Your task to perform on an android device: add a contact in the contacts app Image 0: 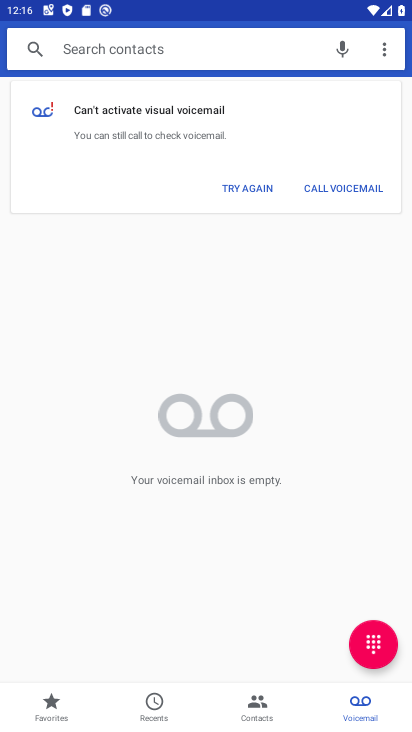
Step 0: press home button
Your task to perform on an android device: add a contact in the contacts app Image 1: 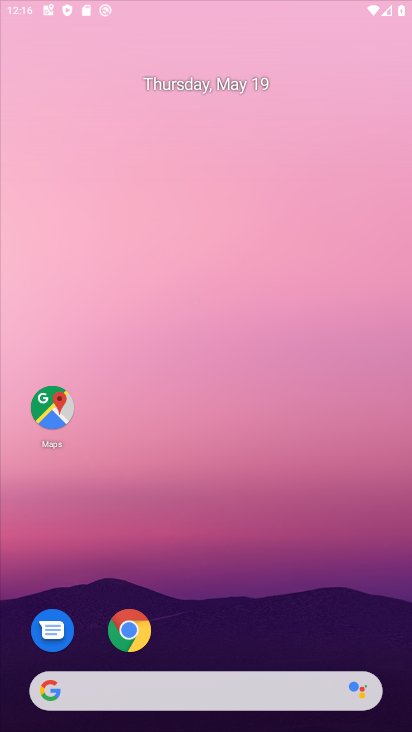
Step 1: drag from (157, 653) to (22, 254)
Your task to perform on an android device: add a contact in the contacts app Image 2: 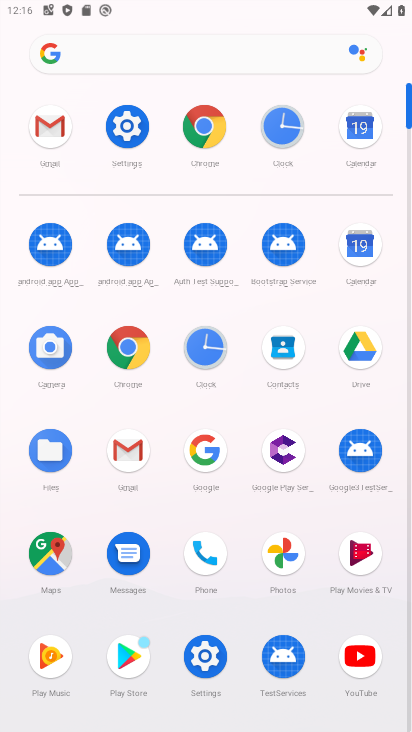
Step 2: click (286, 361)
Your task to perform on an android device: add a contact in the contacts app Image 3: 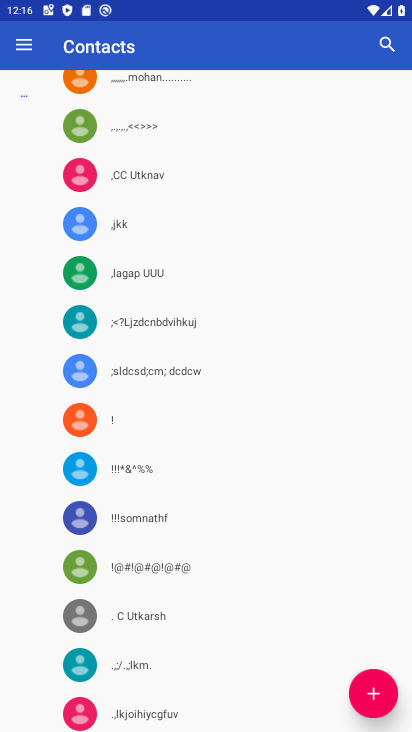
Step 3: drag from (253, 627) to (283, 411)
Your task to perform on an android device: add a contact in the contacts app Image 4: 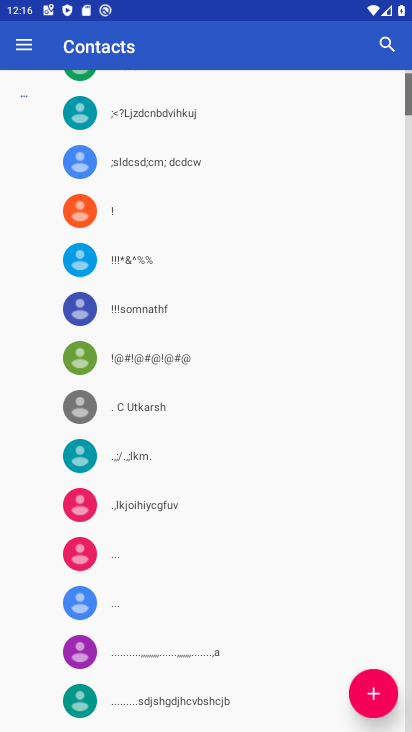
Step 4: click (370, 706)
Your task to perform on an android device: add a contact in the contacts app Image 5: 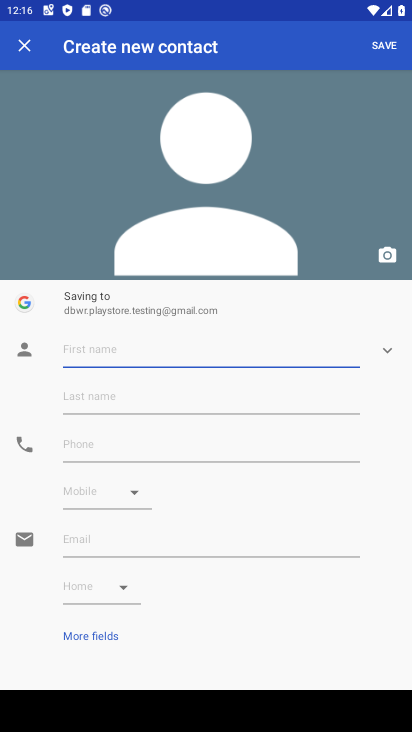
Step 5: type "contacts"
Your task to perform on an android device: add a contact in the contacts app Image 6: 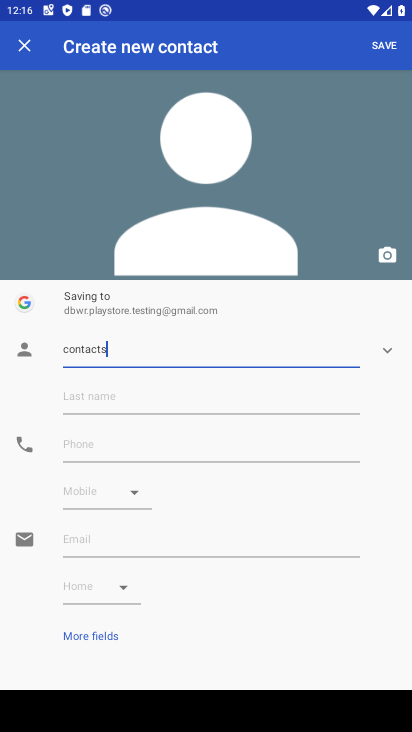
Step 6: type ""
Your task to perform on an android device: add a contact in the contacts app Image 7: 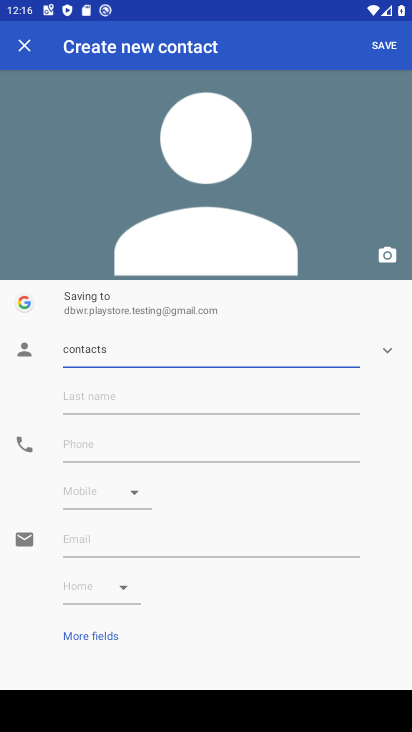
Step 7: click (382, 54)
Your task to perform on an android device: add a contact in the contacts app Image 8: 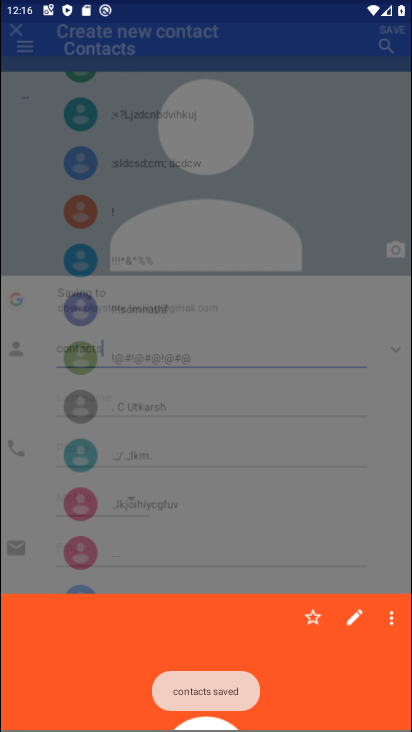
Step 8: task complete